Your task to perform on an android device: Open calendar and show me the third week of next month Image 0: 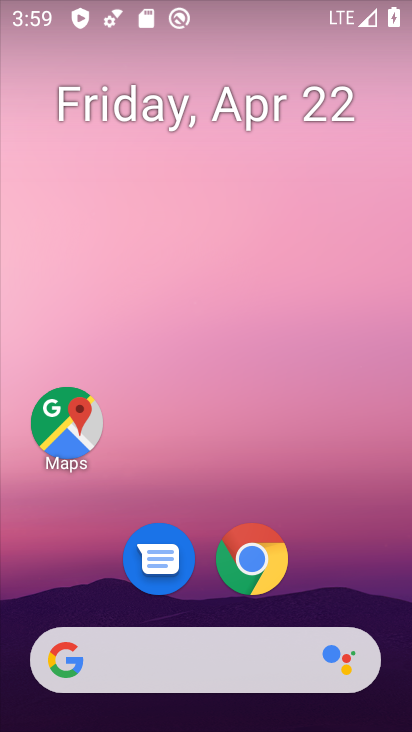
Step 0: drag from (342, 547) to (274, 75)
Your task to perform on an android device: Open calendar and show me the third week of next month Image 1: 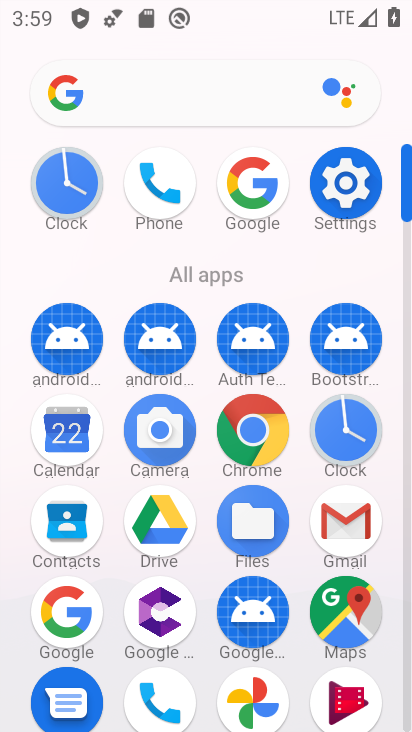
Step 1: click (59, 444)
Your task to perform on an android device: Open calendar and show me the third week of next month Image 2: 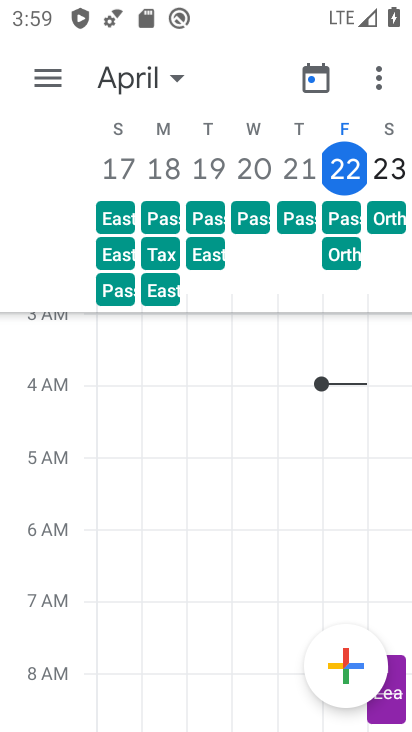
Step 2: click (172, 66)
Your task to perform on an android device: Open calendar and show me the third week of next month Image 3: 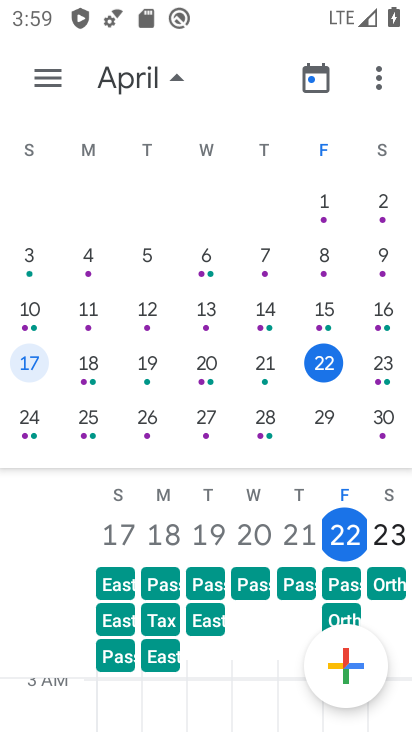
Step 3: drag from (352, 298) to (26, 364)
Your task to perform on an android device: Open calendar and show me the third week of next month Image 4: 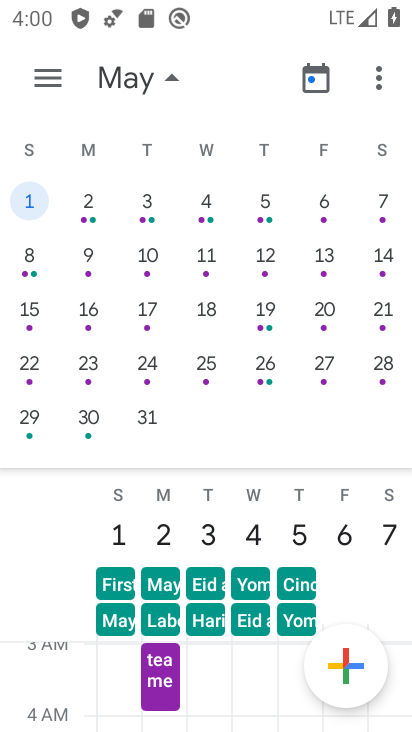
Step 4: click (39, 308)
Your task to perform on an android device: Open calendar and show me the third week of next month Image 5: 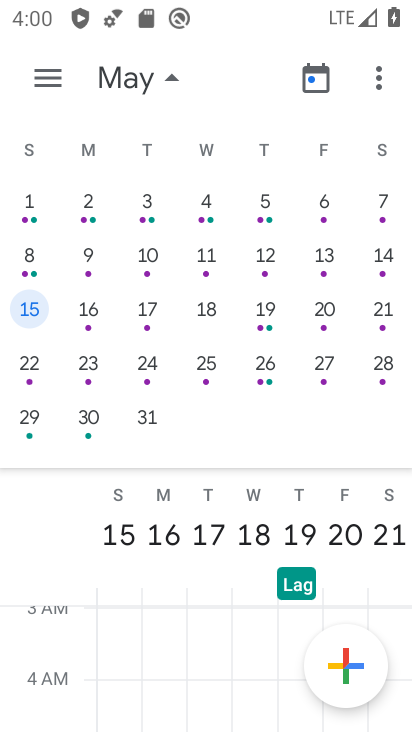
Step 5: task complete